Your task to perform on an android device: toggle priority inbox in the gmail app Image 0: 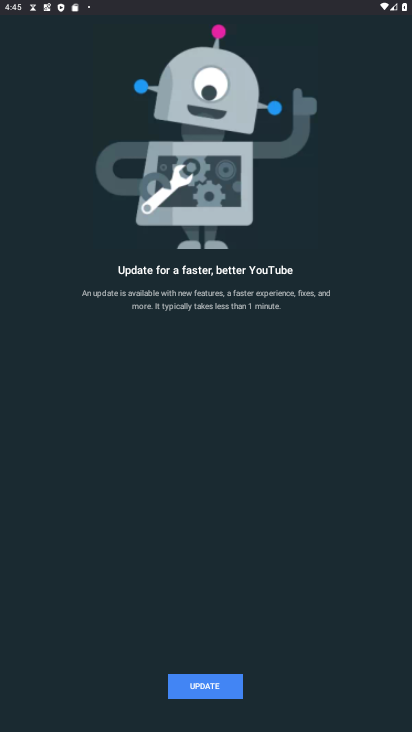
Step 0: press home button
Your task to perform on an android device: toggle priority inbox in the gmail app Image 1: 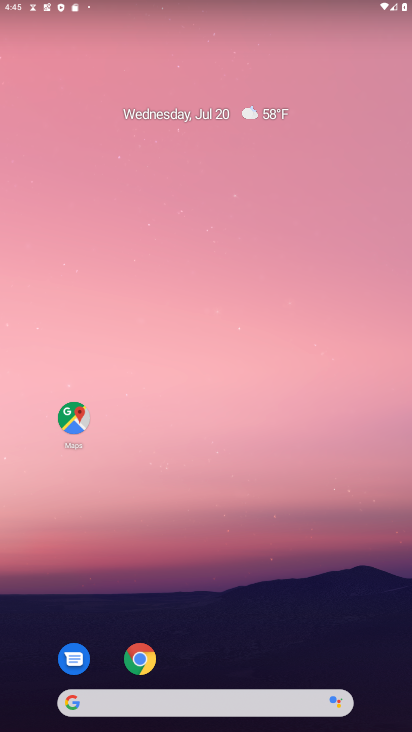
Step 1: drag from (259, 661) to (295, 15)
Your task to perform on an android device: toggle priority inbox in the gmail app Image 2: 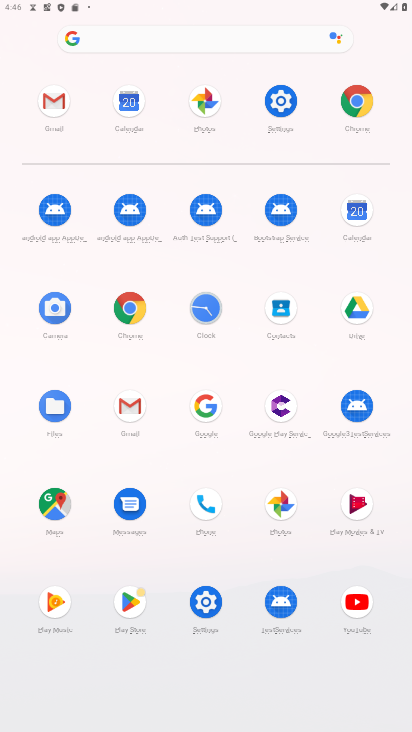
Step 2: click (130, 400)
Your task to perform on an android device: toggle priority inbox in the gmail app Image 3: 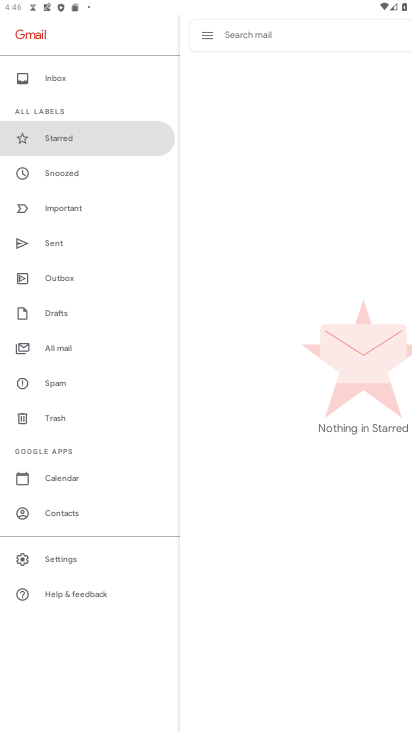
Step 3: click (69, 559)
Your task to perform on an android device: toggle priority inbox in the gmail app Image 4: 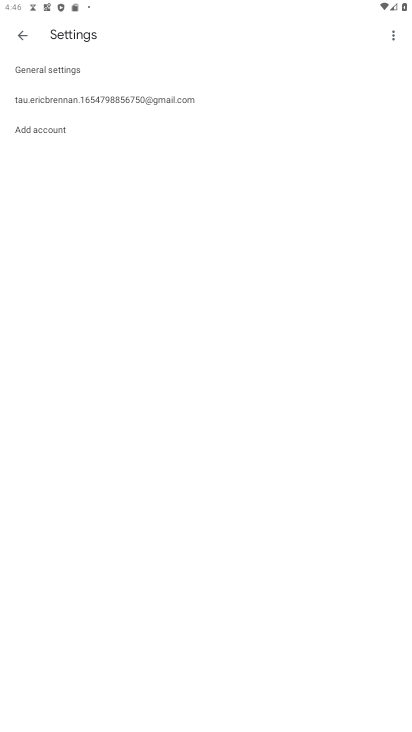
Step 4: click (60, 91)
Your task to perform on an android device: toggle priority inbox in the gmail app Image 5: 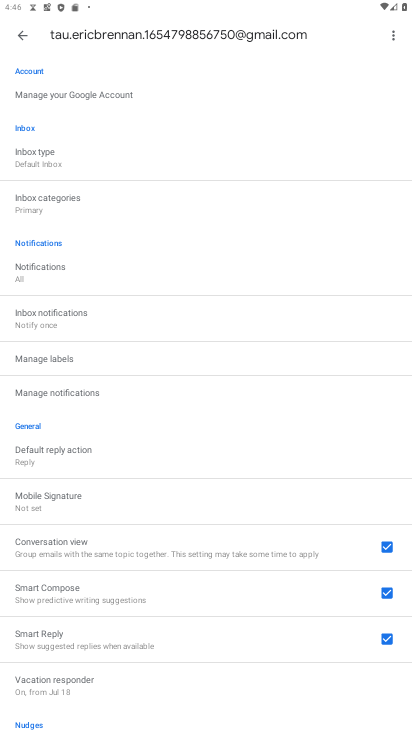
Step 5: click (60, 162)
Your task to perform on an android device: toggle priority inbox in the gmail app Image 6: 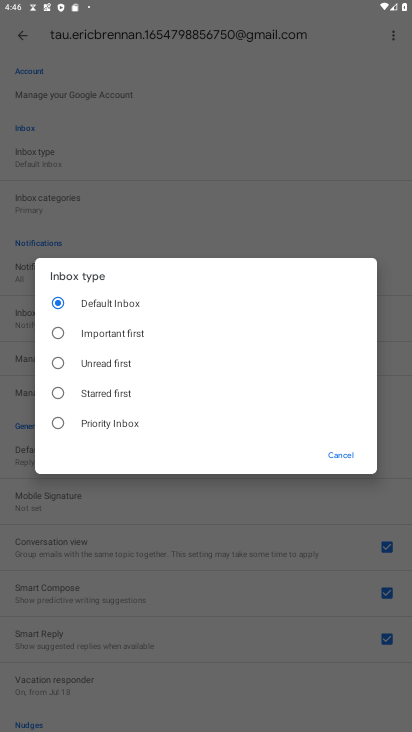
Step 6: click (57, 421)
Your task to perform on an android device: toggle priority inbox in the gmail app Image 7: 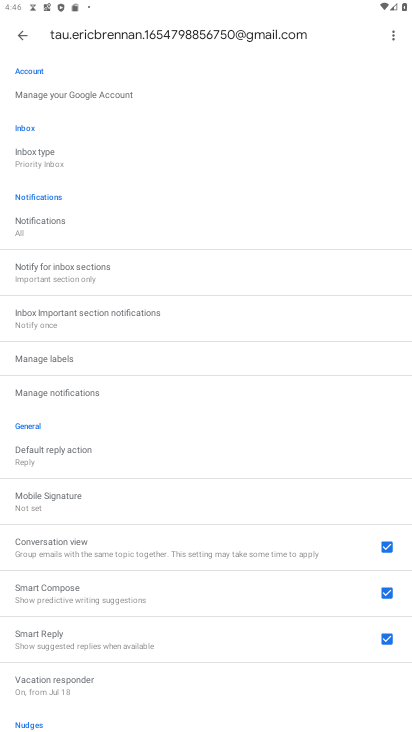
Step 7: task complete